Your task to perform on an android device: turn on location history Image 0: 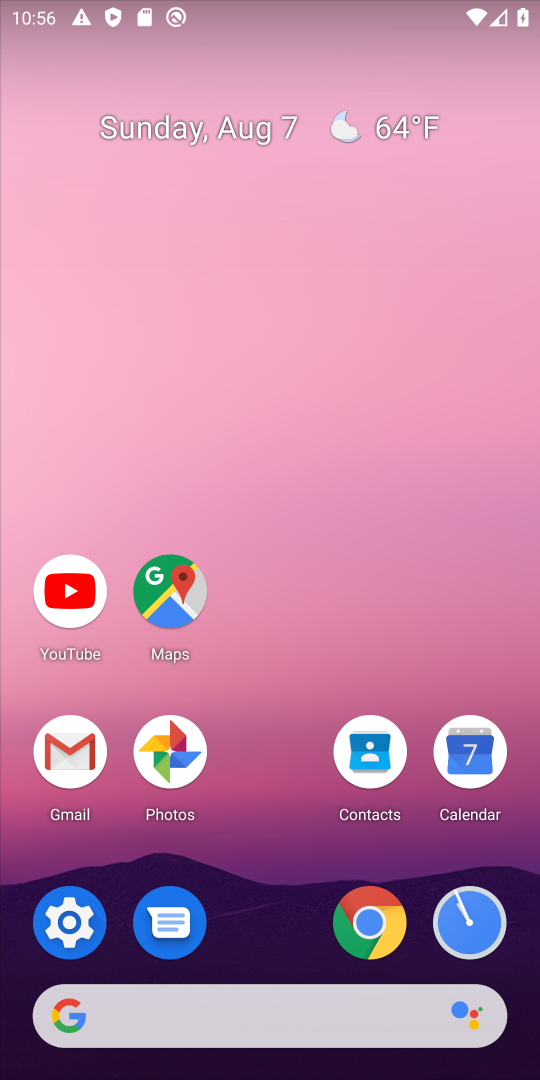
Step 0: click (77, 926)
Your task to perform on an android device: turn on location history Image 1: 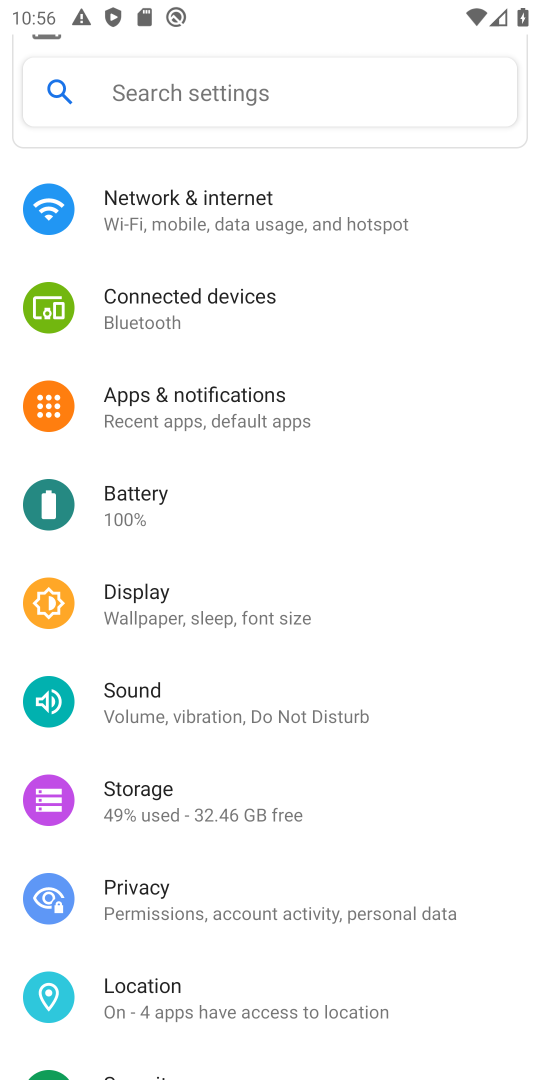
Step 1: click (125, 988)
Your task to perform on an android device: turn on location history Image 2: 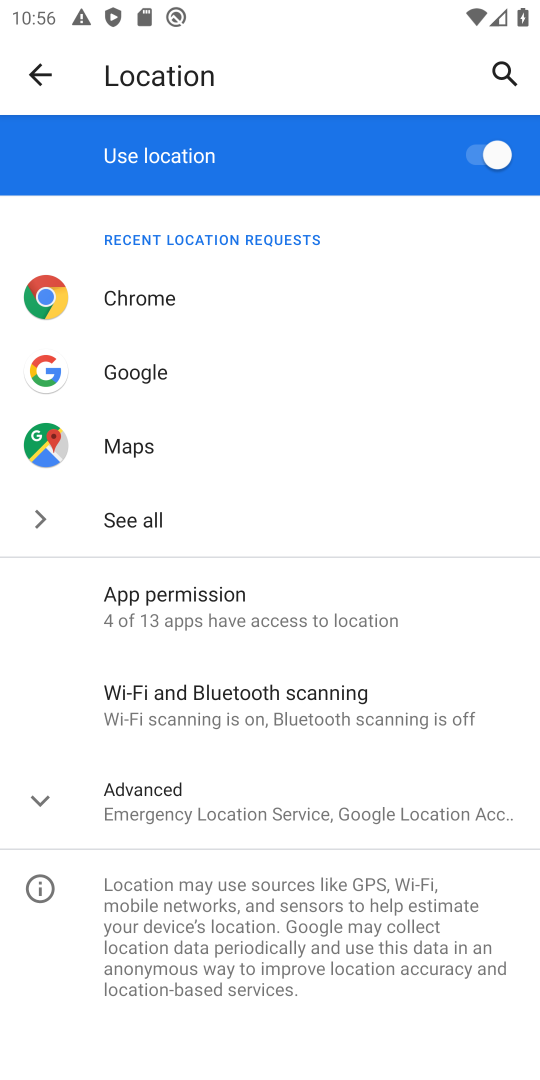
Step 2: click (45, 802)
Your task to perform on an android device: turn on location history Image 3: 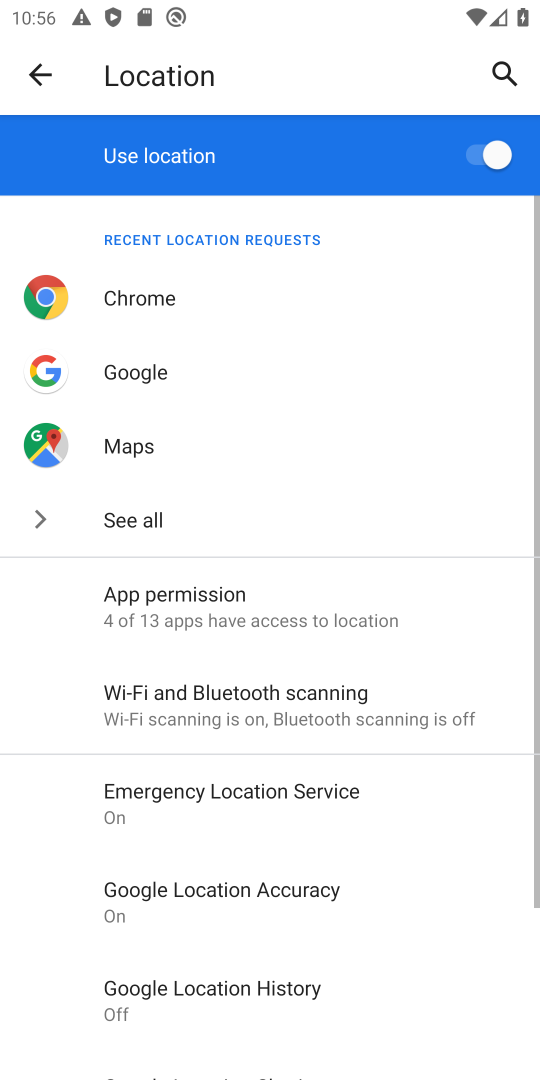
Step 3: click (45, 802)
Your task to perform on an android device: turn on location history Image 4: 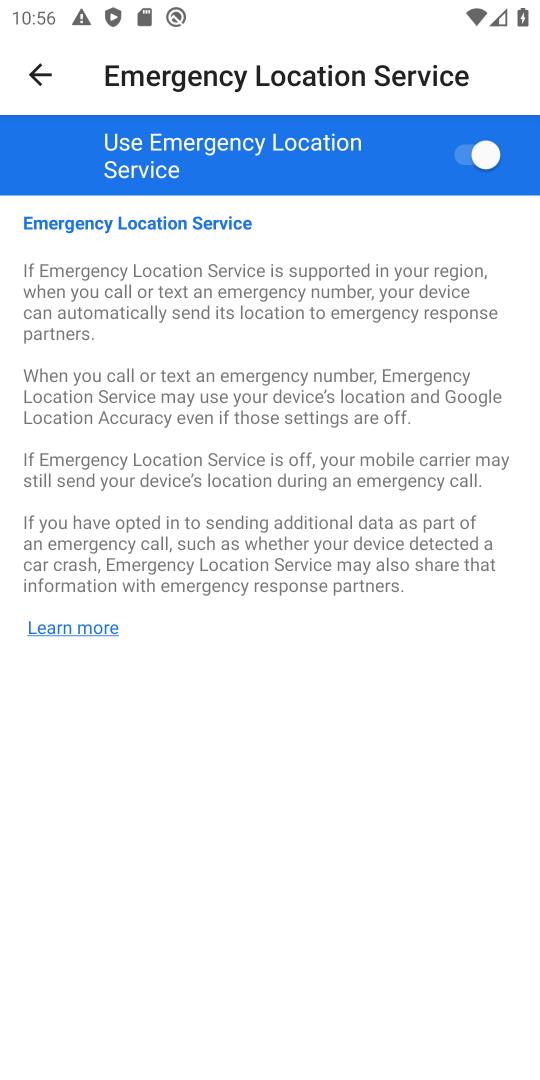
Step 4: click (38, 71)
Your task to perform on an android device: turn on location history Image 5: 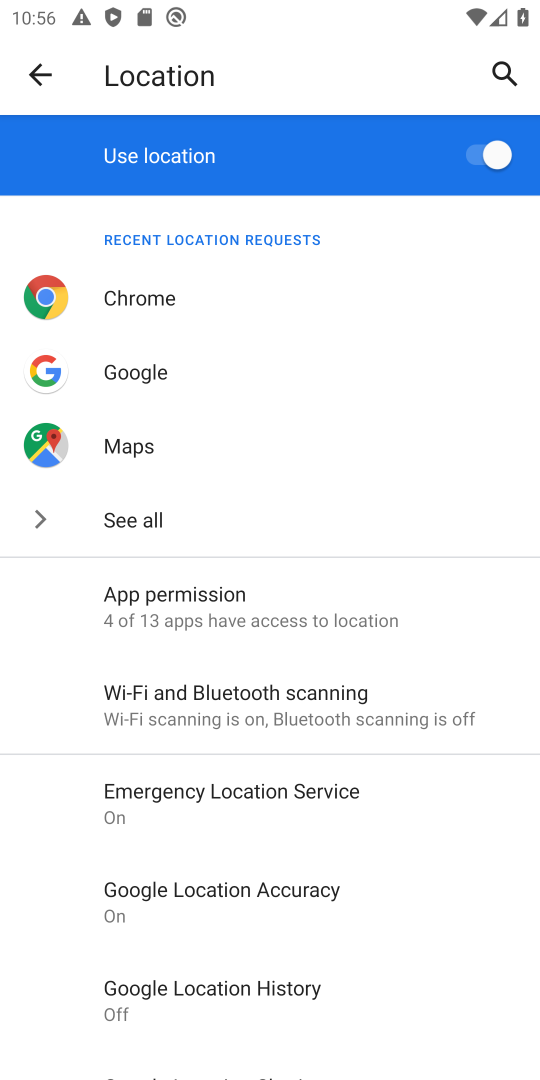
Step 5: click (203, 996)
Your task to perform on an android device: turn on location history Image 6: 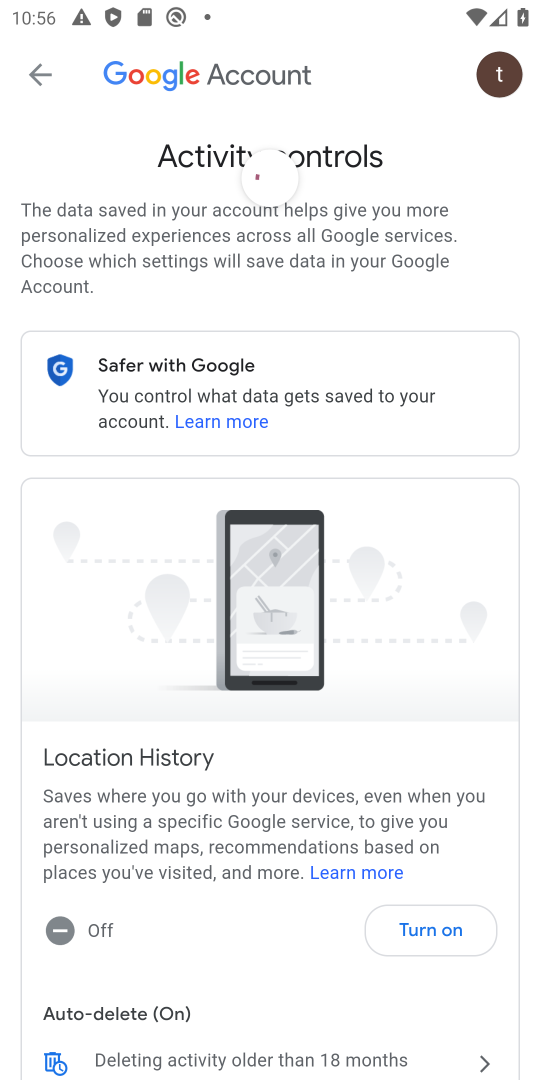
Step 6: click (404, 935)
Your task to perform on an android device: turn on location history Image 7: 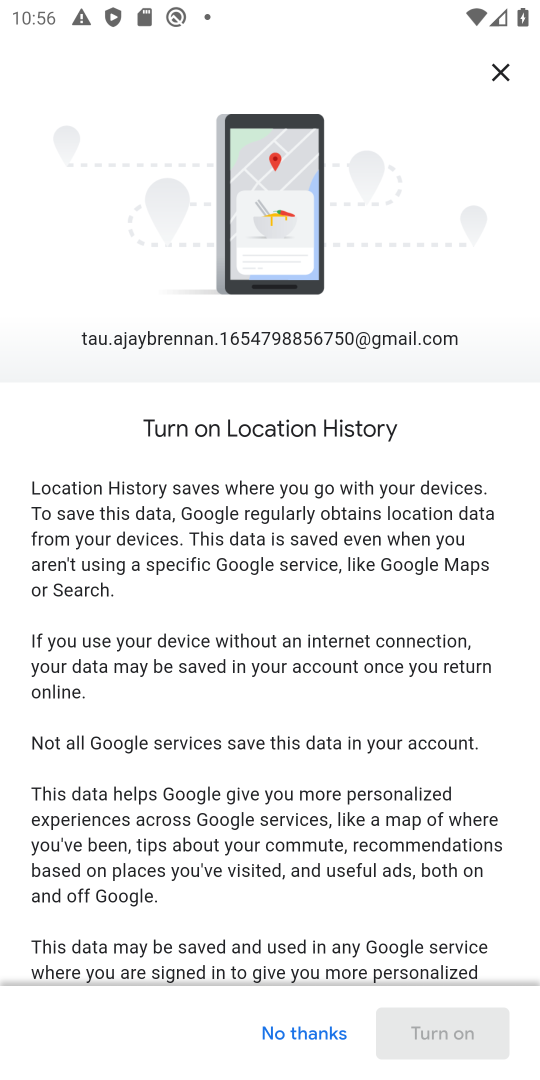
Step 7: drag from (371, 869) to (382, 450)
Your task to perform on an android device: turn on location history Image 8: 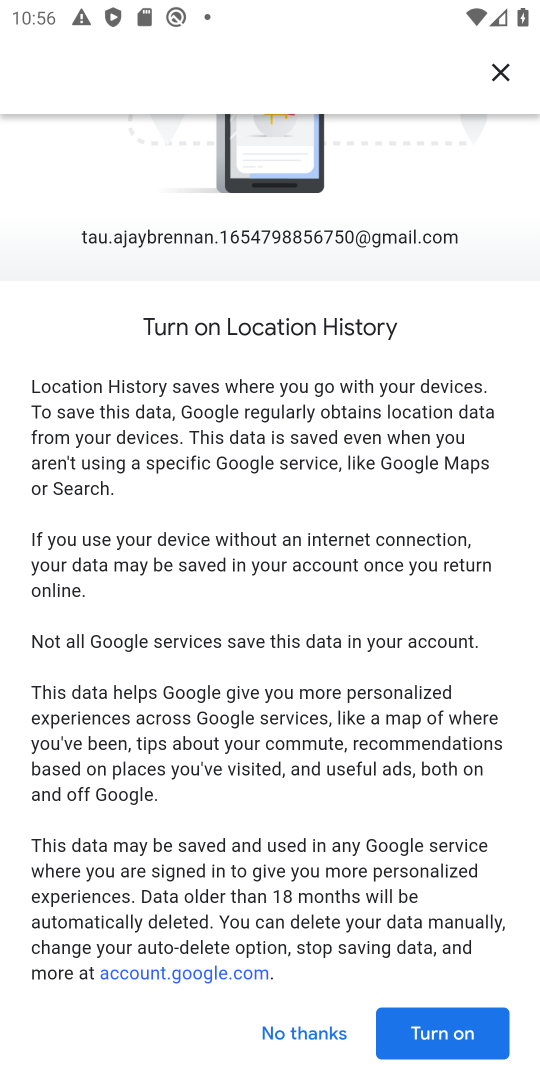
Step 8: click (416, 1013)
Your task to perform on an android device: turn on location history Image 9: 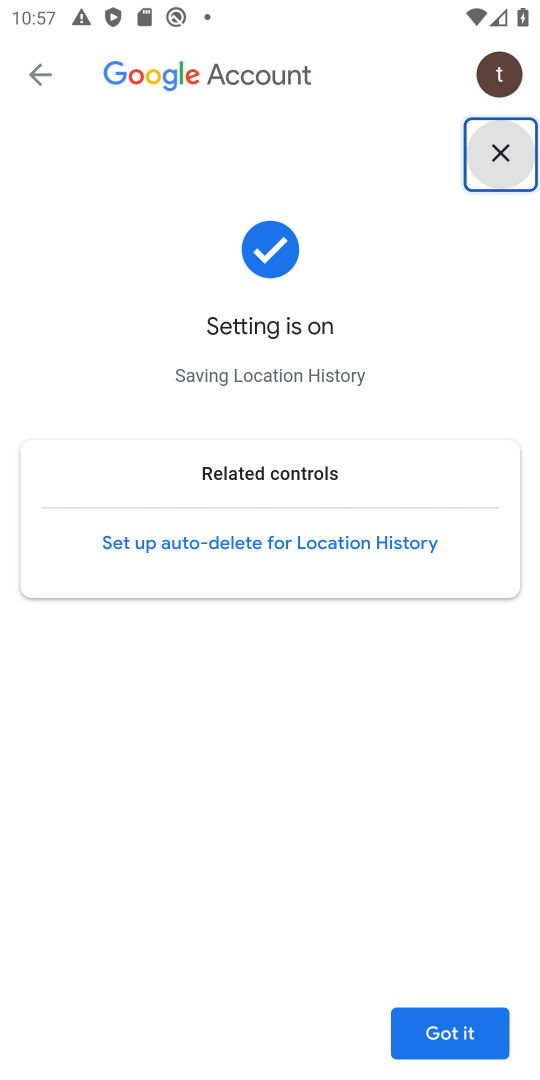
Step 9: click (470, 1024)
Your task to perform on an android device: turn on location history Image 10: 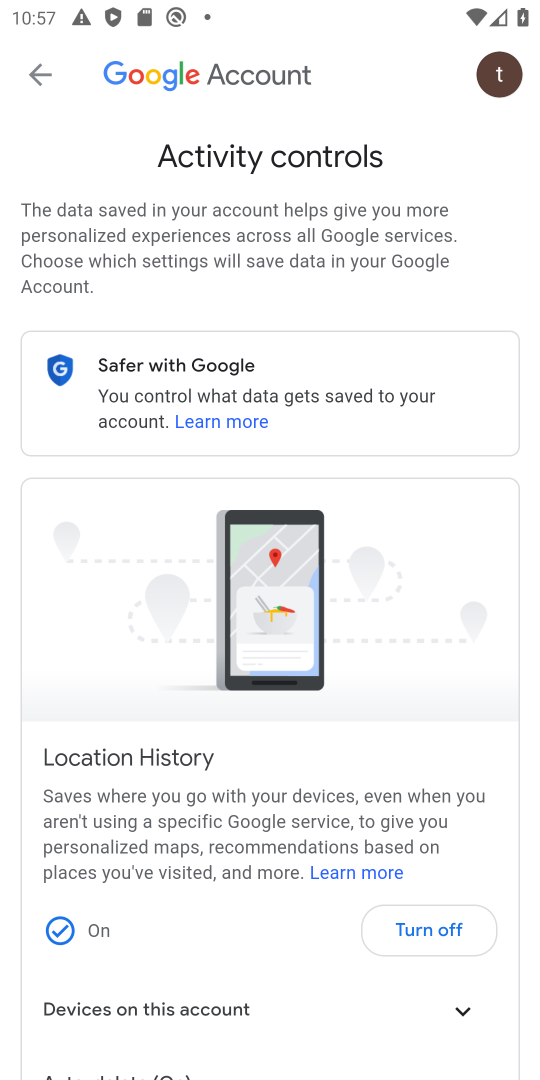
Step 10: task complete